Your task to perform on an android device: delete a single message in the gmail app Image 0: 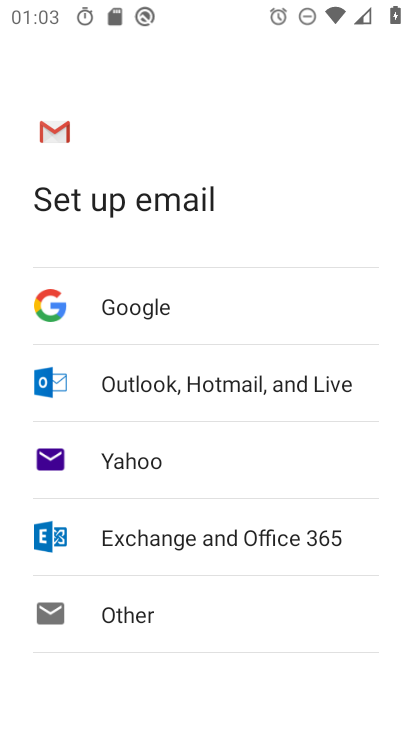
Step 0: press home button
Your task to perform on an android device: delete a single message in the gmail app Image 1: 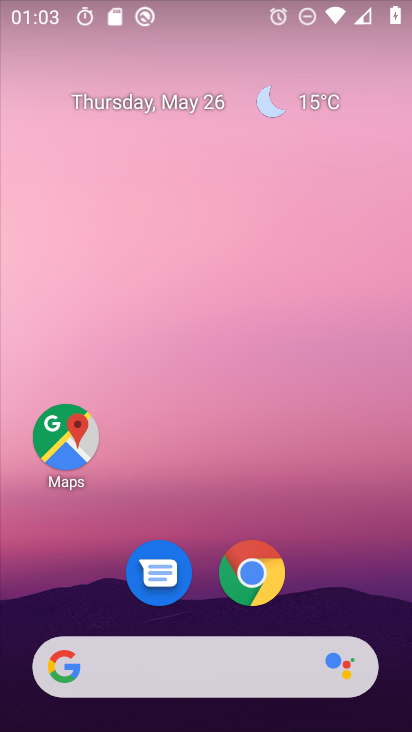
Step 1: drag from (322, 602) to (236, 4)
Your task to perform on an android device: delete a single message in the gmail app Image 2: 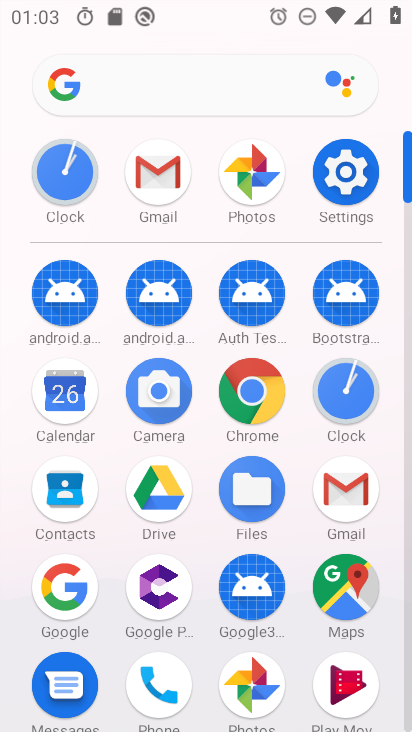
Step 2: click (144, 173)
Your task to perform on an android device: delete a single message in the gmail app Image 3: 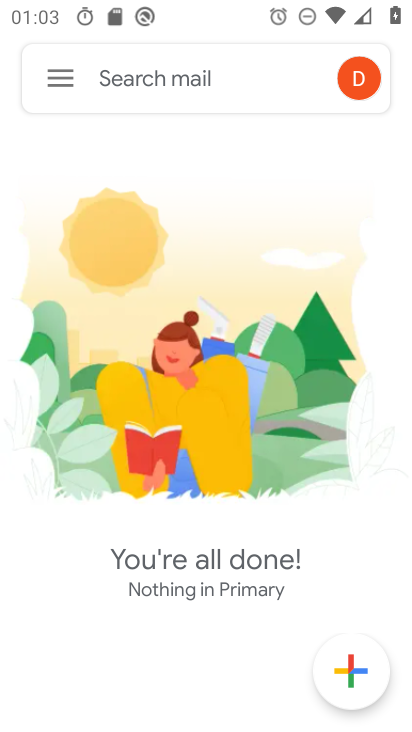
Step 3: click (58, 75)
Your task to perform on an android device: delete a single message in the gmail app Image 4: 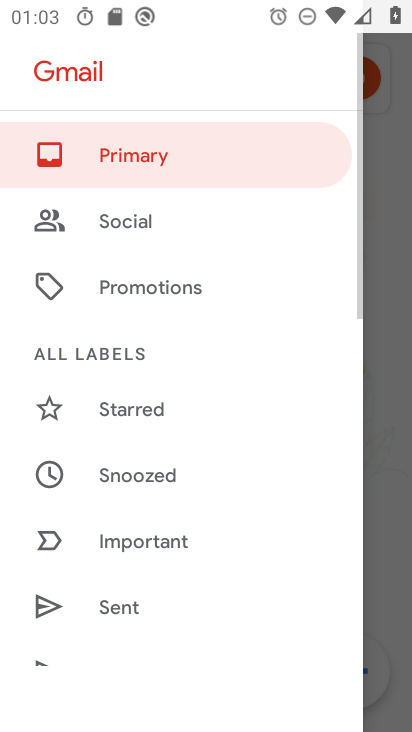
Step 4: drag from (163, 530) to (147, 130)
Your task to perform on an android device: delete a single message in the gmail app Image 5: 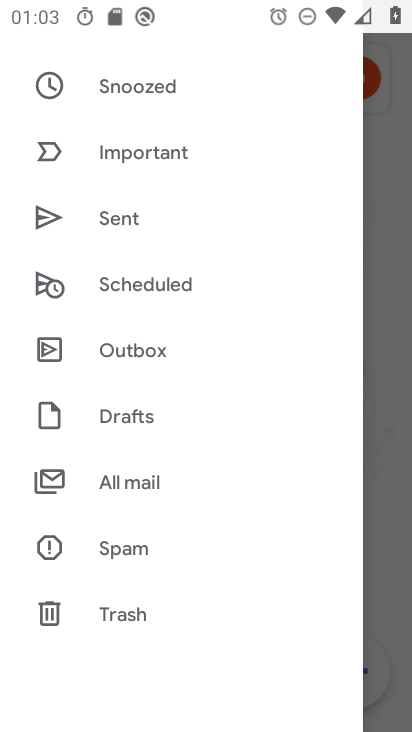
Step 5: click (128, 482)
Your task to perform on an android device: delete a single message in the gmail app Image 6: 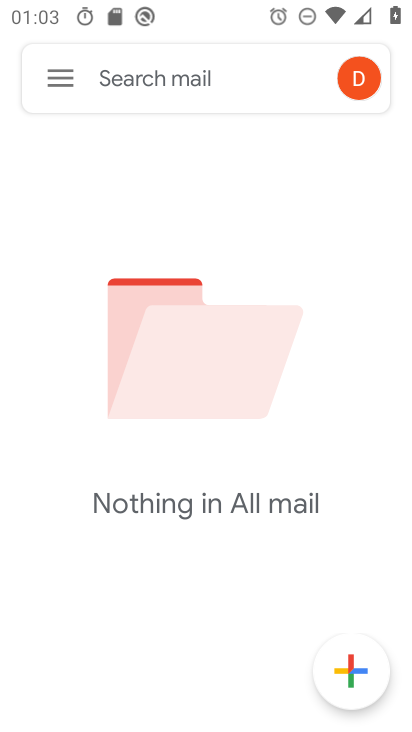
Step 6: task complete